Your task to perform on an android device: open a new tab in the chrome app Image 0: 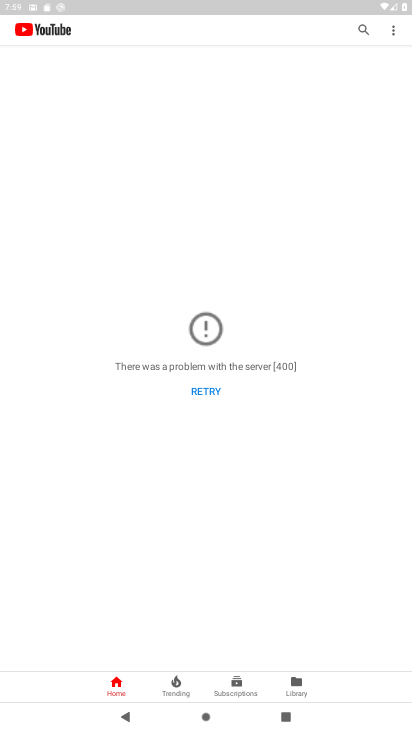
Step 0: press home button
Your task to perform on an android device: open a new tab in the chrome app Image 1: 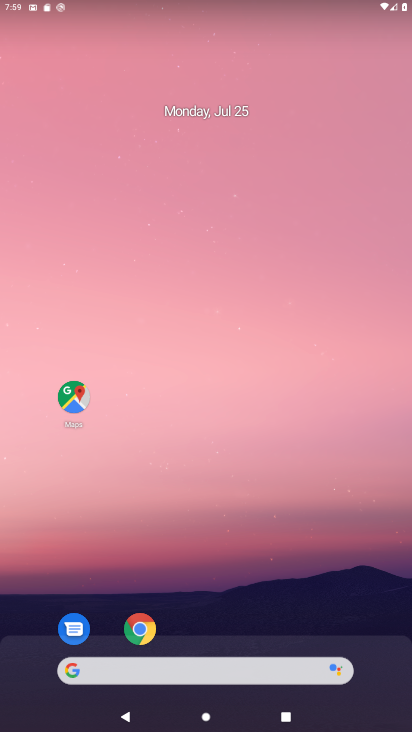
Step 1: click (141, 630)
Your task to perform on an android device: open a new tab in the chrome app Image 2: 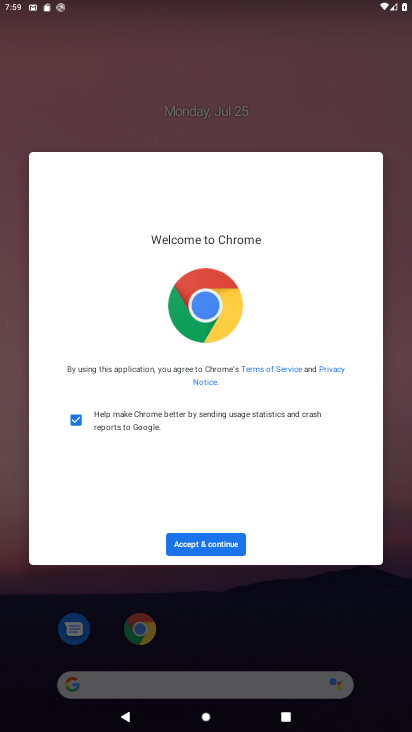
Step 2: click (207, 545)
Your task to perform on an android device: open a new tab in the chrome app Image 3: 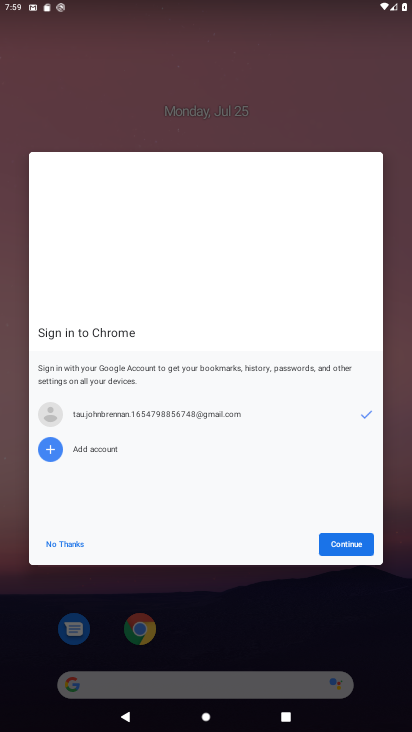
Step 3: click (347, 545)
Your task to perform on an android device: open a new tab in the chrome app Image 4: 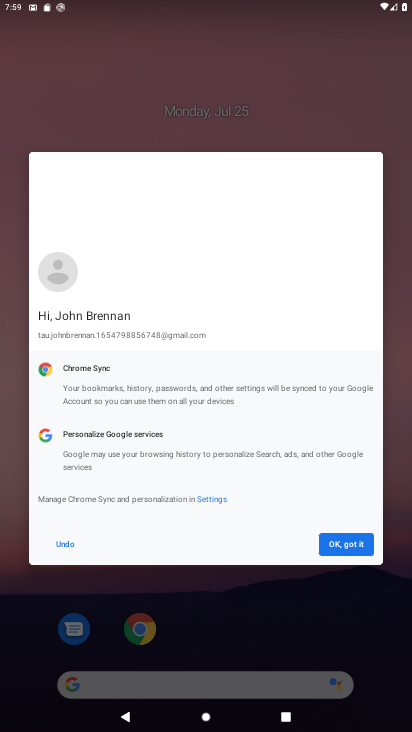
Step 4: click (347, 545)
Your task to perform on an android device: open a new tab in the chrome app Image 5: 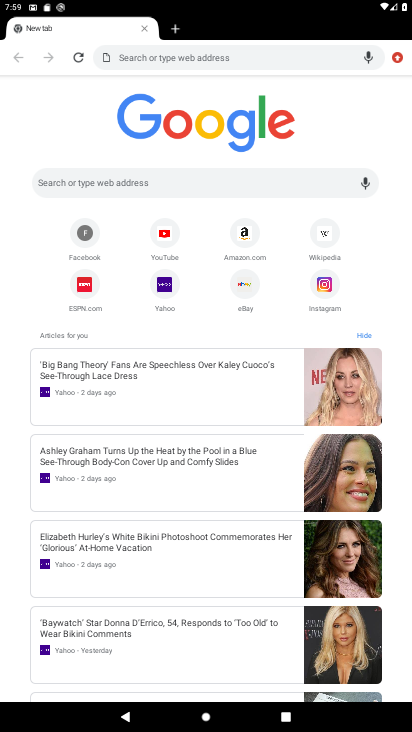
Step 5: click (396, 56)
Your task to perform on an android device: open a new tab in the chrome app Image 6: 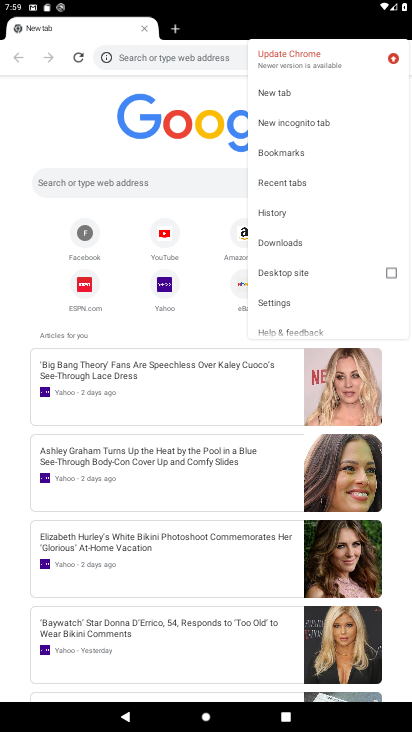
Step 6: click (276, 93)
Your task to perform on an android device: open a new tab in the chrome app Image 7: 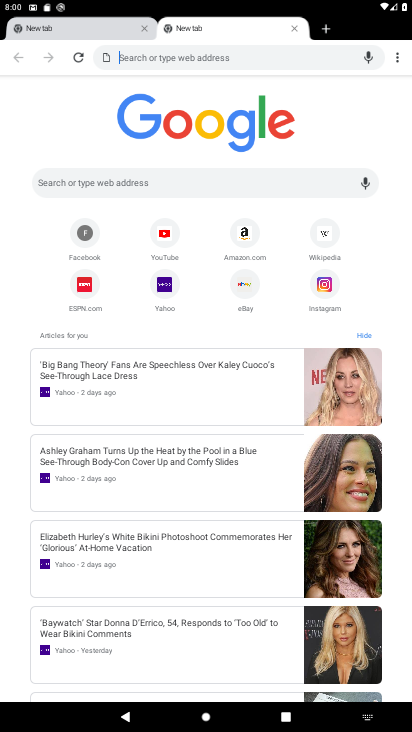
Step 7: task complete